Your task to perform on an android device: What's the weather? Image 0: 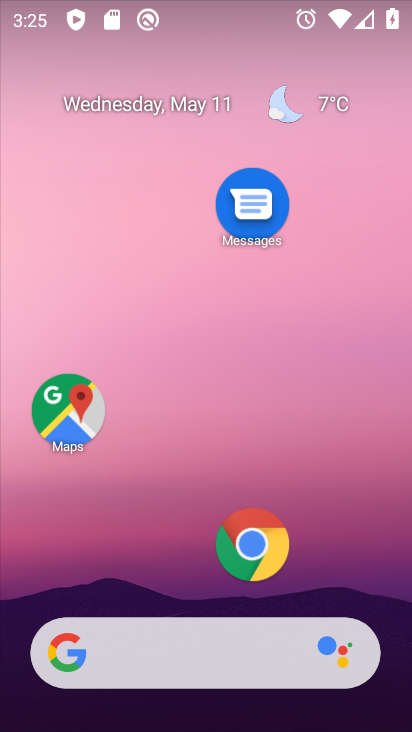
Step 0: click (307, 95)
Your task to perform on an android device: What's the weather? Image 1: 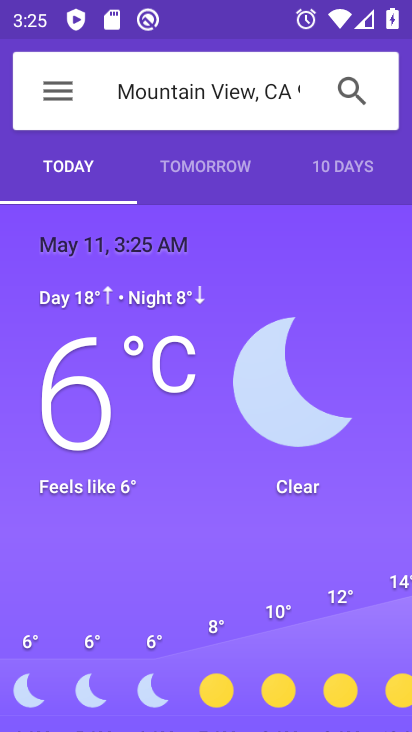
Step 1: task complete